Your task to perform on an android device: delete browsing data in the chrome app Image 0: 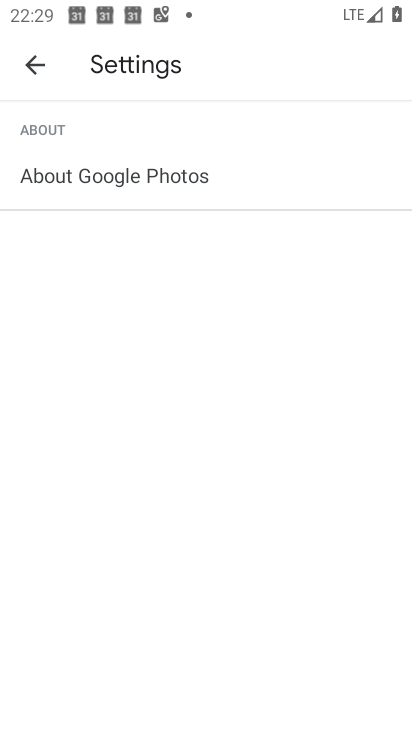
Step 0: press home button
Your task to perform on an android device: delete browsing data in the chrome app Image 1: 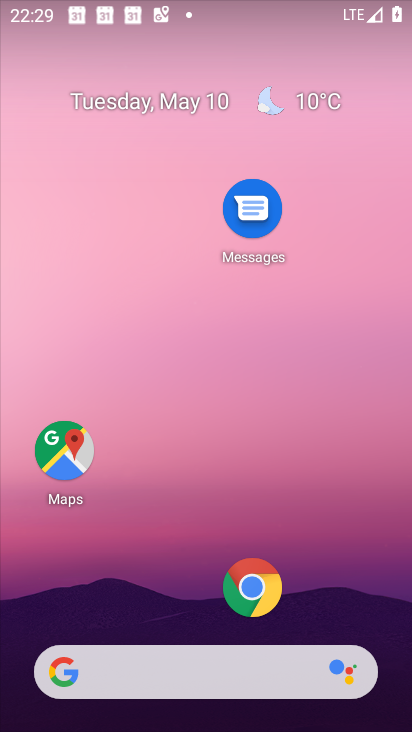
Step 1: click (266, 584)
Your task to perform on an android device: delete browsing data in the chrome app Image 2: 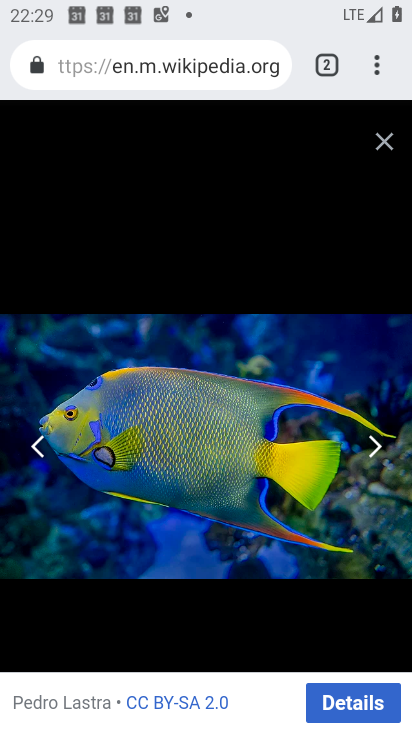
Step 2: click (372, 56)
Your task to perform on an android device: delete browsing data in the chrome app Image 3: 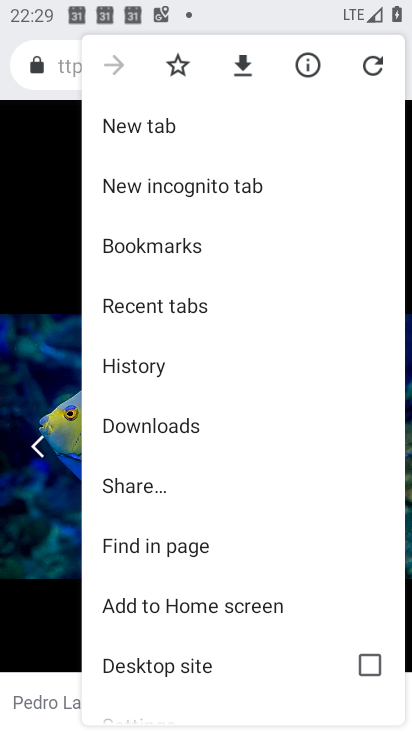
Step 3: drag from (177, 619) to (203, 382)
Your task to perform on an android device: delete browsing data in the chrome app Image 4: 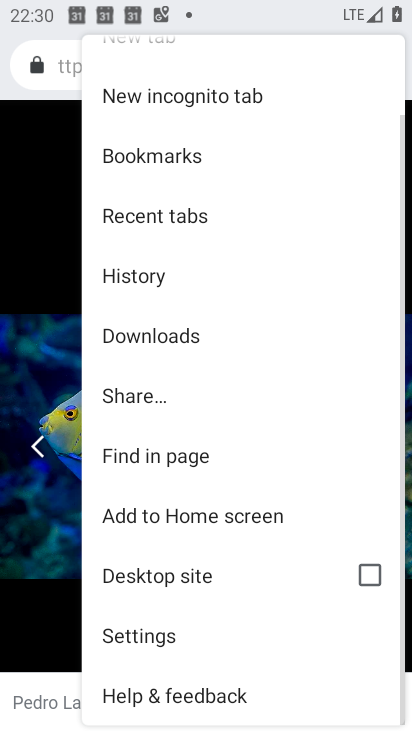
Step 4: click (156, 273)
Your task to perform on an android device: delete browsing data in the chrome app Image 5: 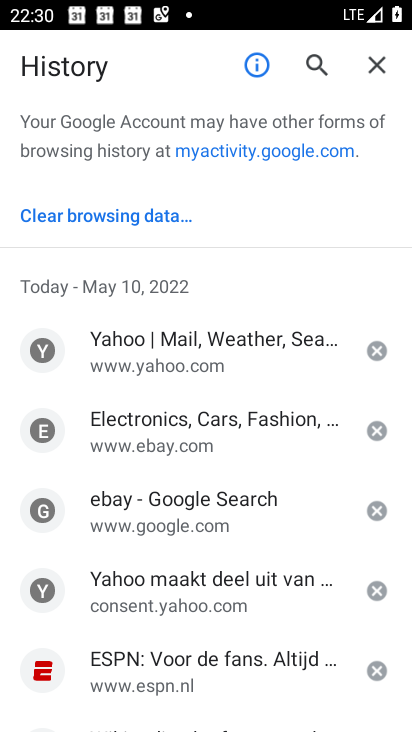
Step 5: click (145, 208)
Your task to perform on an android device: delete browsing data in the chrome app Image 6: 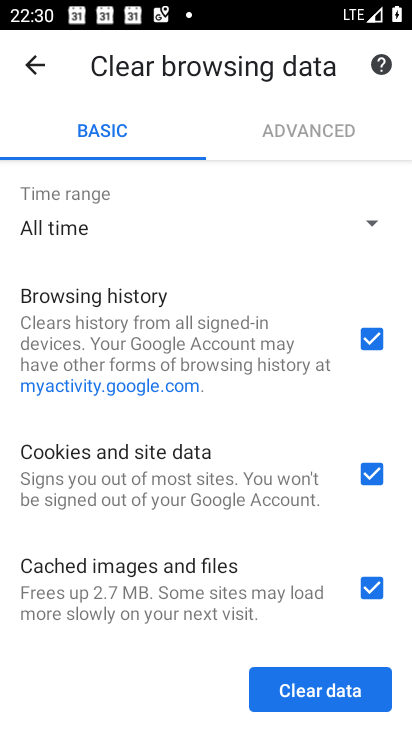
Step 6: click (337, 686)
Your task to perform on an android device: delete browsing data in the chrome app Image 7: 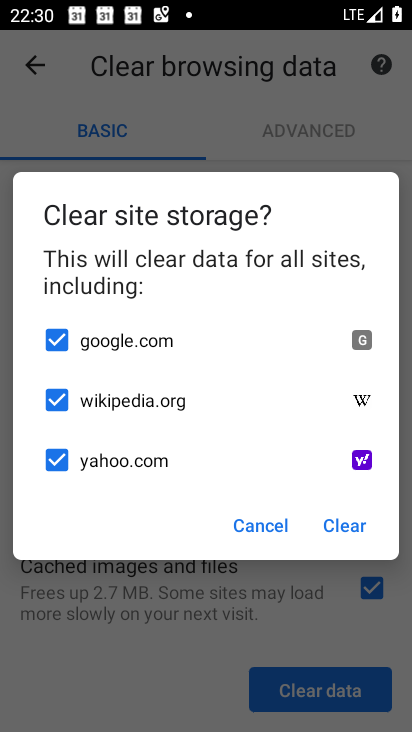
Step 7: click (345, 517)
Your task to perform on an android device: delete browsing data in the chrome app Image 8: 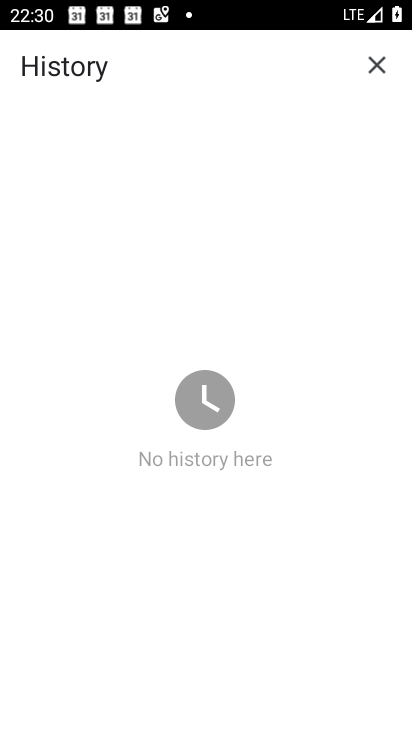
Step 8: task complete